Your task to perform on an android device: Go to accessibility settings Image 0: 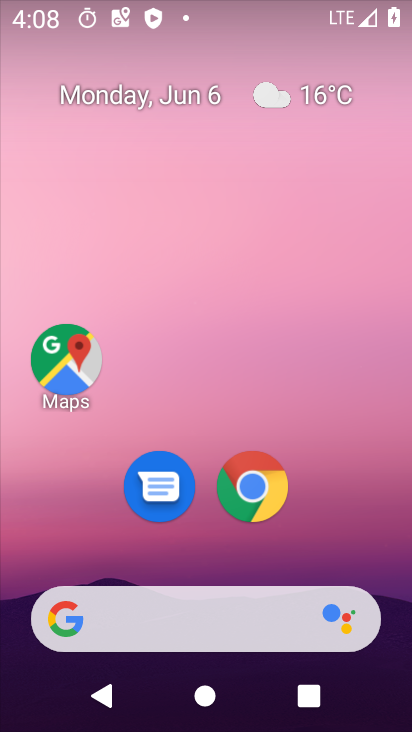
Step 0: drag from (324, 493) to (297, 5)
Your task to perform on an android device: Go to accessibility settings Image 1: 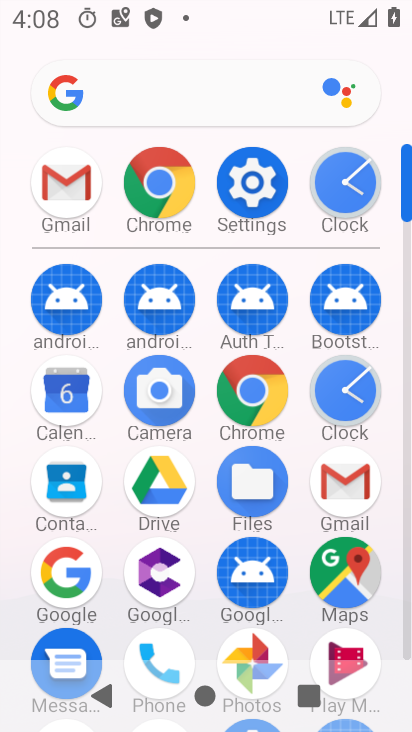
Step 1: click (252, 178)
Your task to perform on an android device: Go to accessibility settings Image 2: 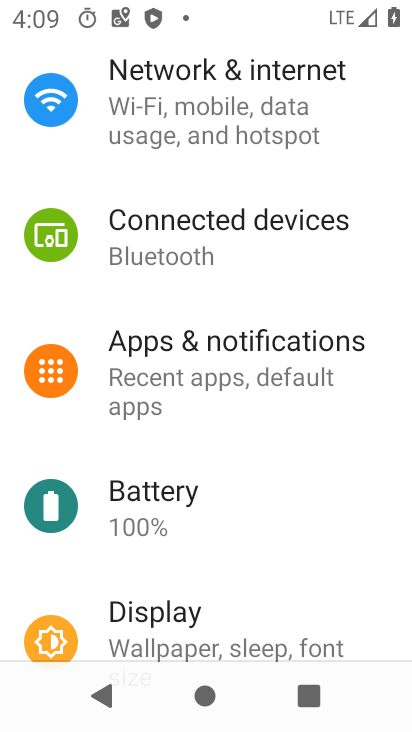
Step 2: drag from (175, 544) to (239, 119)
Your task to perform on an android device: Go to accessibility settings Image 3: 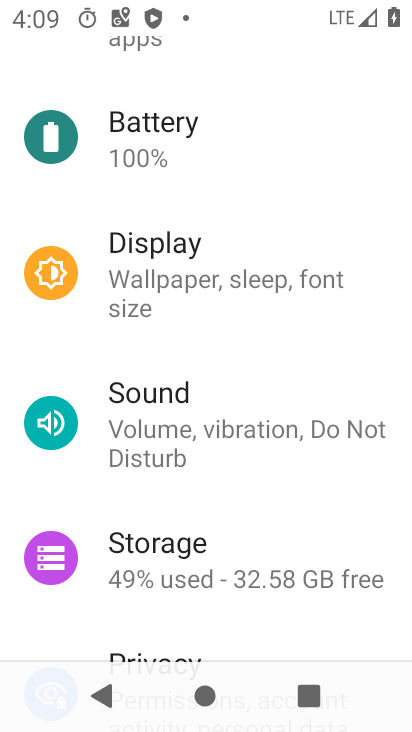
Step 3: drag from (271, 618) to (191, 74)
Your task to perform on an android device: Go to accessibility settings Image 4: 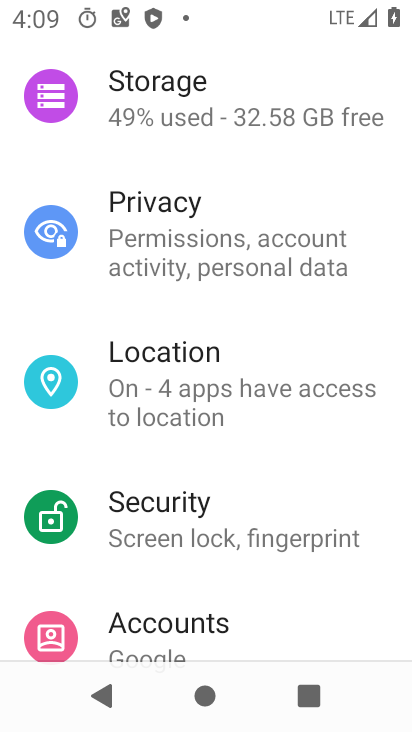
Step 4: drag from (160, 495) to (203, 174)
Your task to perform on an android device: Go to accessibility settings Image 5: 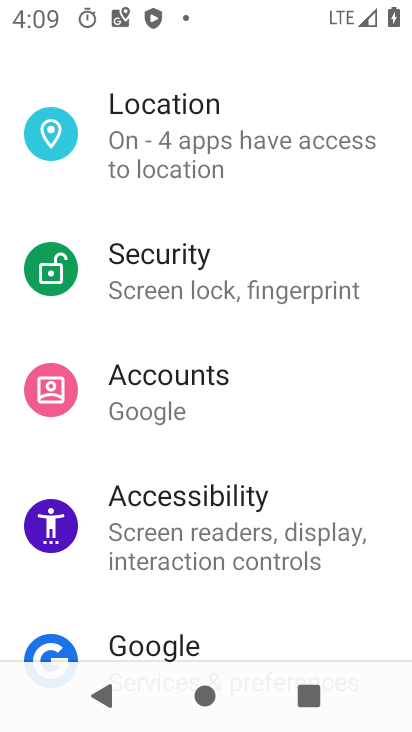
Step 5: drag from (213, 562) to (212, 78)
Your task to perform on an android device: Go to accessibility settings Image 6: 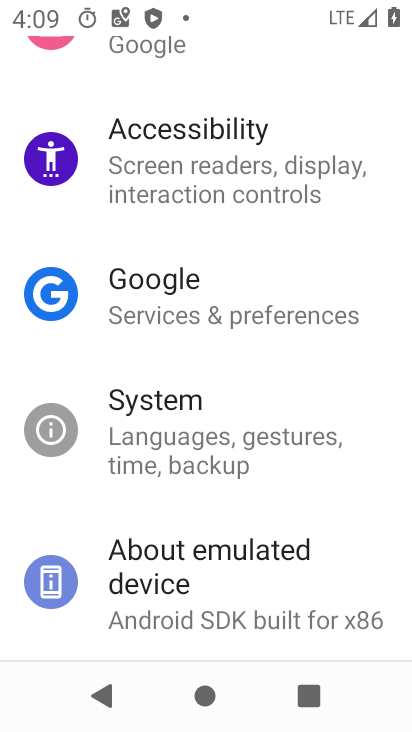
Step 6: drag from (192, 479) to (195, 19)
Your task to perform on an android device: Go to accessibility settings Image 7: 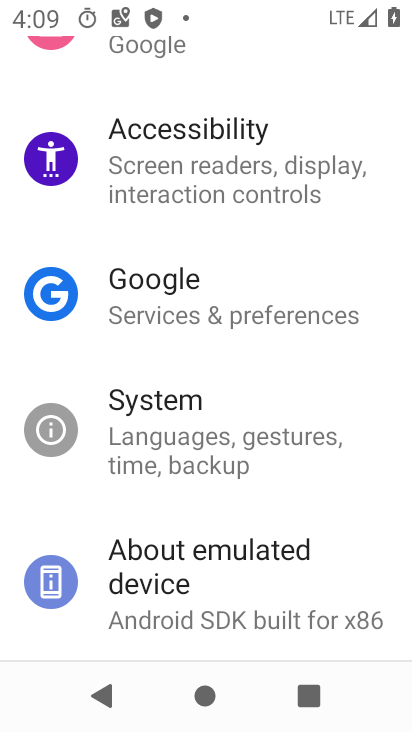
Step 7: click (228, 181)
Your task to perform on an android device: Go to accessibility settings Image 8: 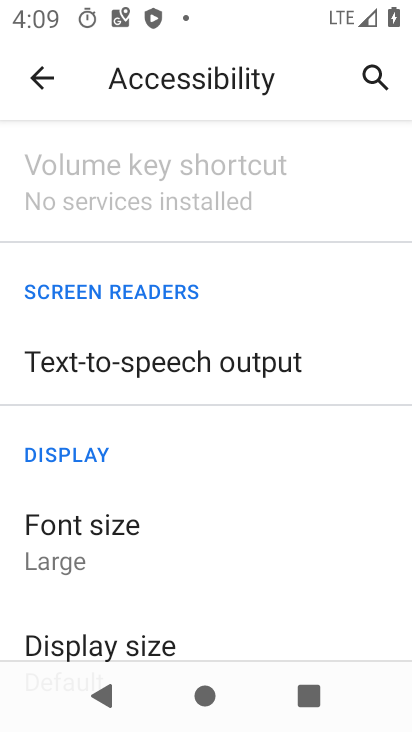
Step 8: task complete